Your task to perform on an android device: Search for sushi restaurants on Maps Image 0: 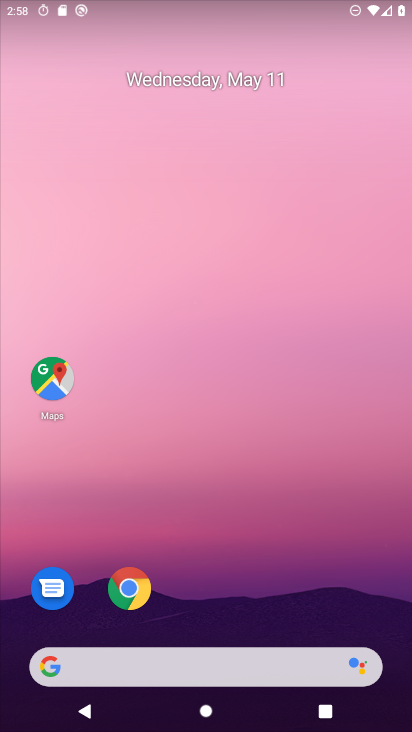
Step 0: click (47, 376)
Your task to perform on an android device: Search for sushi restaurants on Maps Image 1: 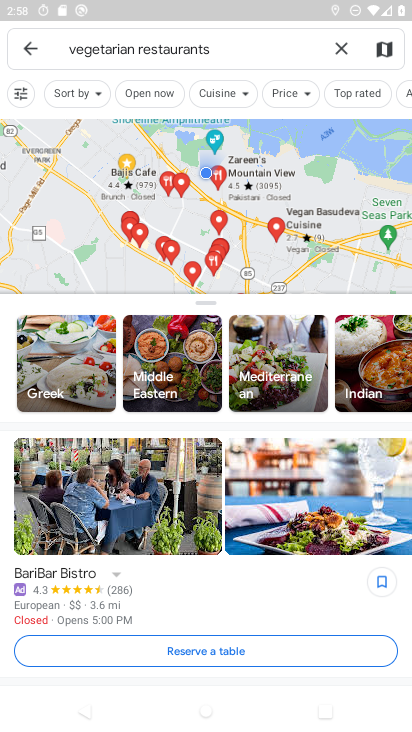
Step 1: click (338, 47)
Your task to perform on an android device: Search for sushi restaurants on Maps Image 2: 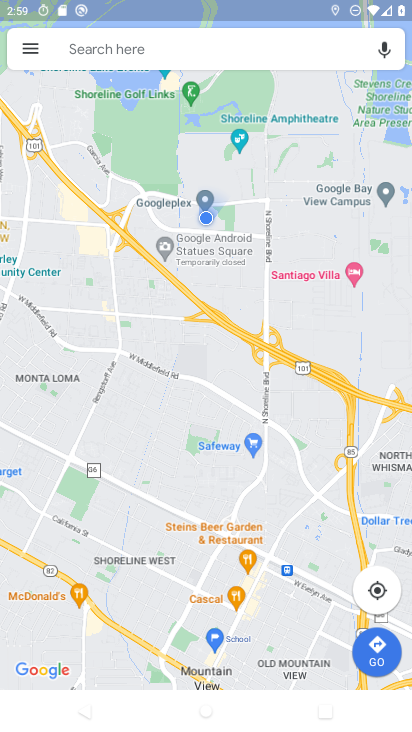
Step 2: click (168, 50)
Your task to perform on an android device: Search for sushi restaurants on Maps Image 3: 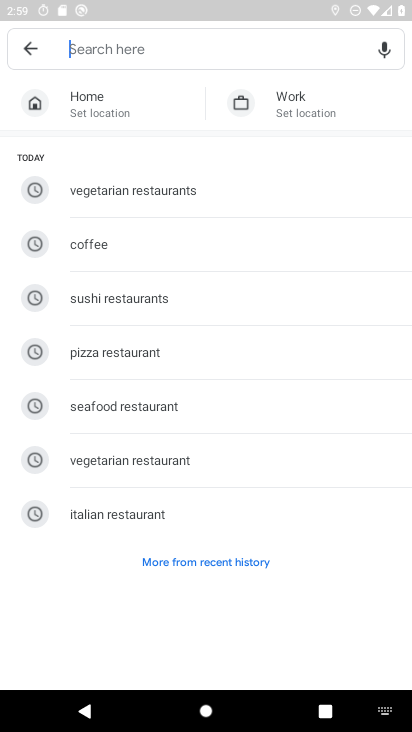
Step 3: click (81, 42)
Your task to perform on an android device: Search for sushi restaurants on Maps Image 4: 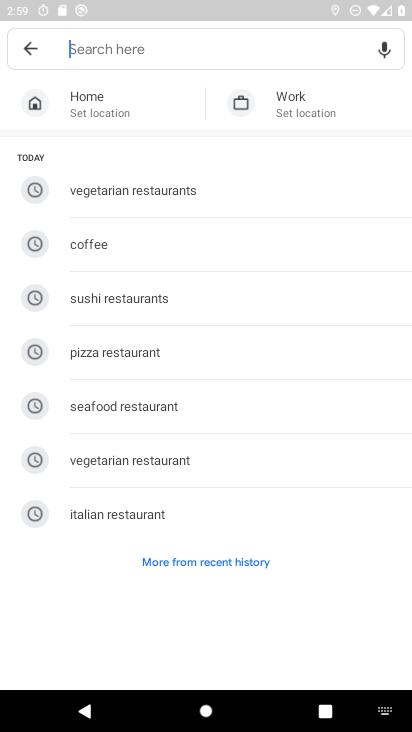
Step 4: type " sushi restaurants "
Your task to perform on an android device: Search for sushi restaurants on Maps Image 5: 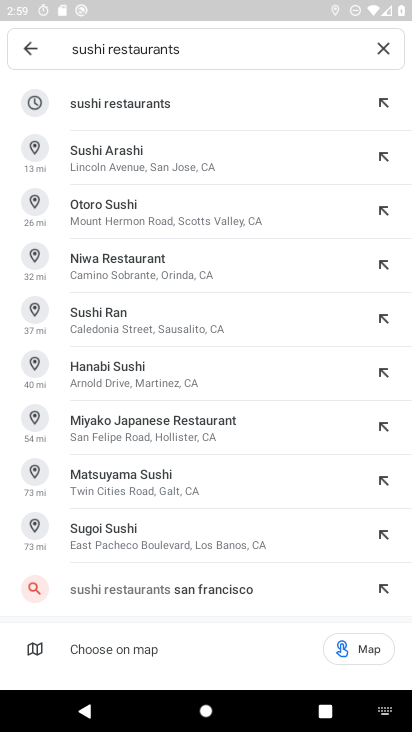
Step 5: click (143, 98)
Your task to perform on an android device: Search for sushi restaurants on Maps Image 6: 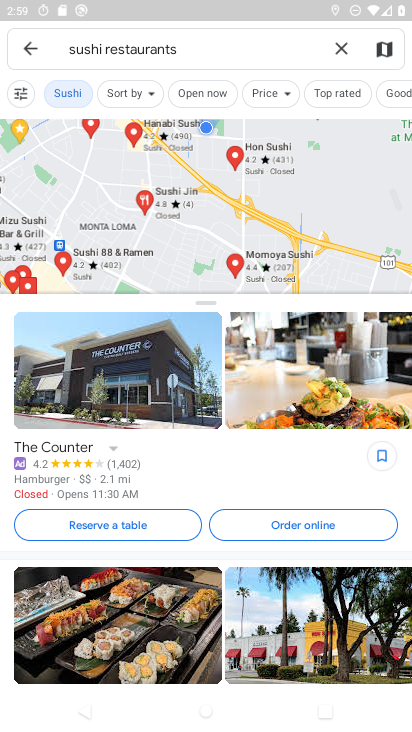
Step 6: task complete